Your task to perform on an android device: turn notification dots off Image 0: 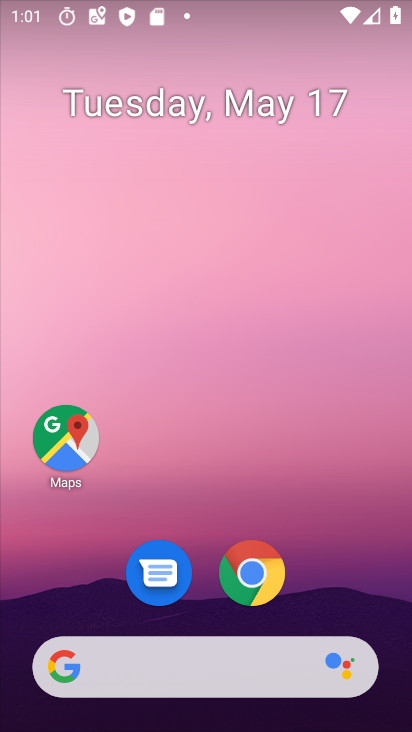
Step 0: drag from (199, 715) to (315, 705)
Your task to perform on an android device: turn notification dots off Image 1: 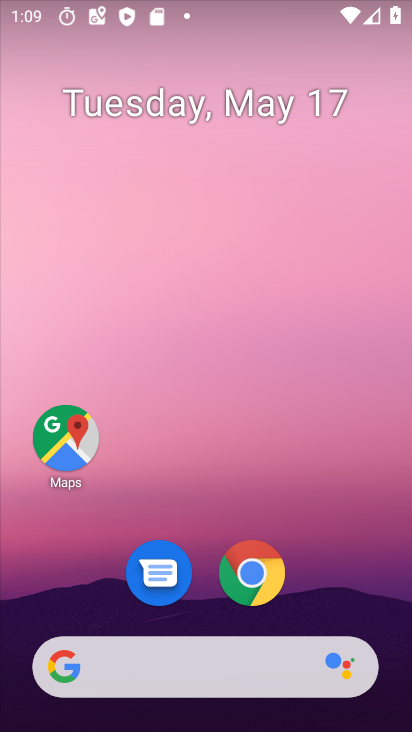
Step 1: drag from (225, 721) to (224, 23)
Your task to perform on an android device: turn notification dots off Image 2: 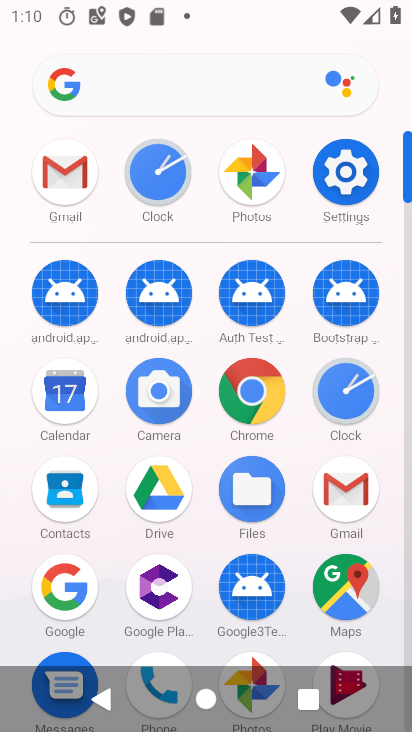
Step 2: click (333, 192)
Your task to perform on an android device: turn notification dots off Image 3: 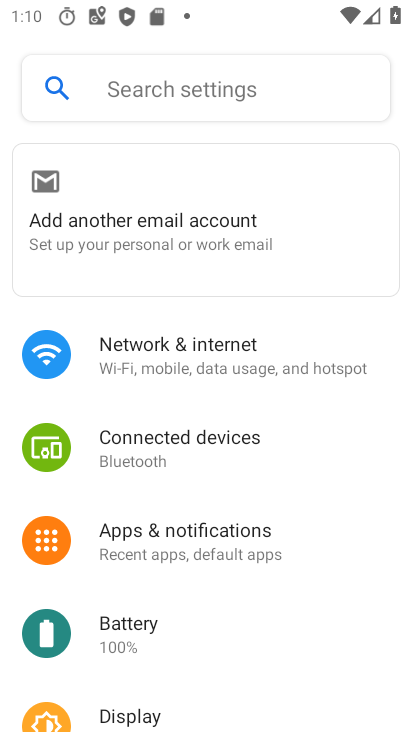
Step 3: click (279, 531)
Your task to perform on an android device: turn notification dots off Image 4: 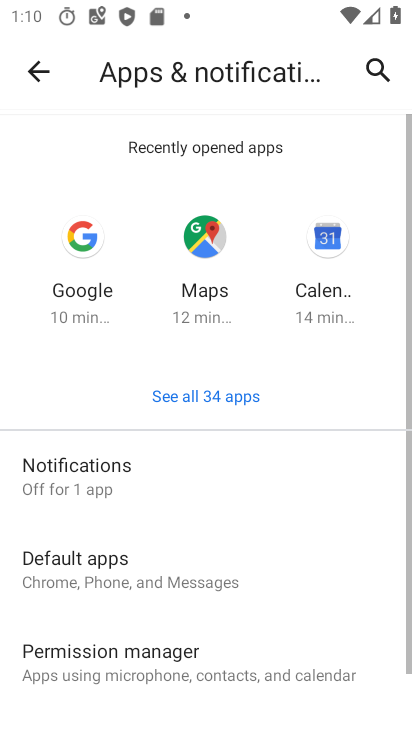
Step 4: click (138, 478)
Your task to perform on an android device: turn notification dots off Image 5: 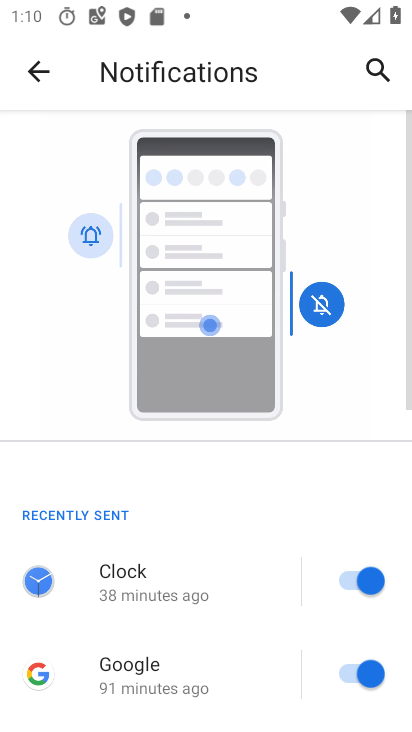
Step 5: drag from (298, 610) to (315, 238)
Your task to perform on an android device: turn notification dots off Image 6: 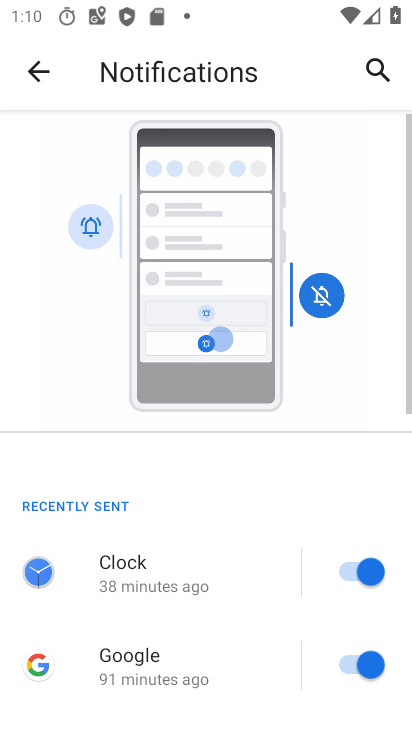
Step 6: drag from (189, 666) to (317, 150)
Your task to perform on an android device: turn notification dots off Image 7: 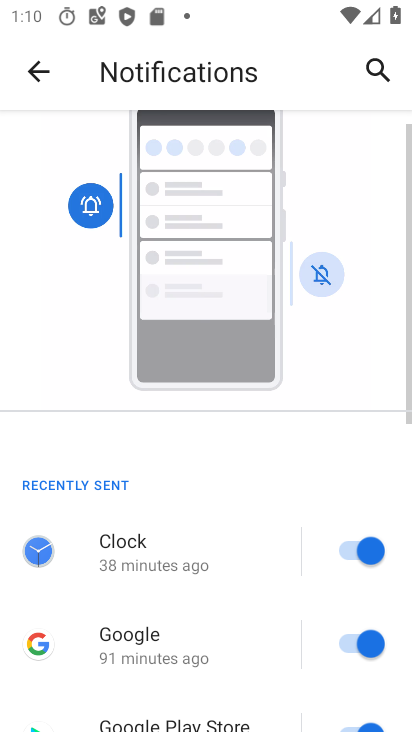
Step 7: drag from (255, 671) to (341, 44)
Your task to perform on an android device: turn notification dots off Image 8: 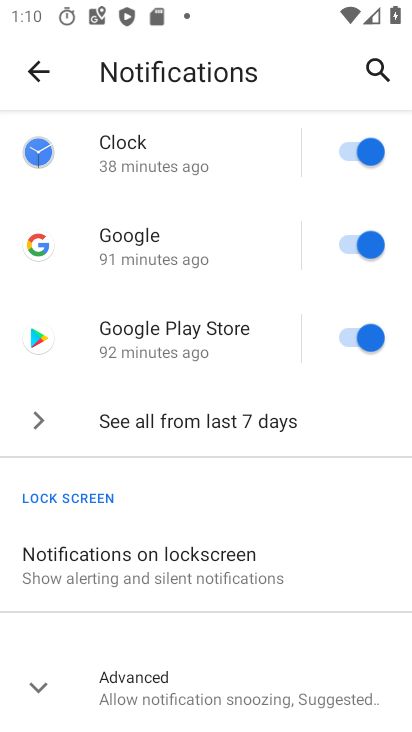
Step 8: click (223, 694)
Your task to perform on an android device: turn notification dots off Image 9: 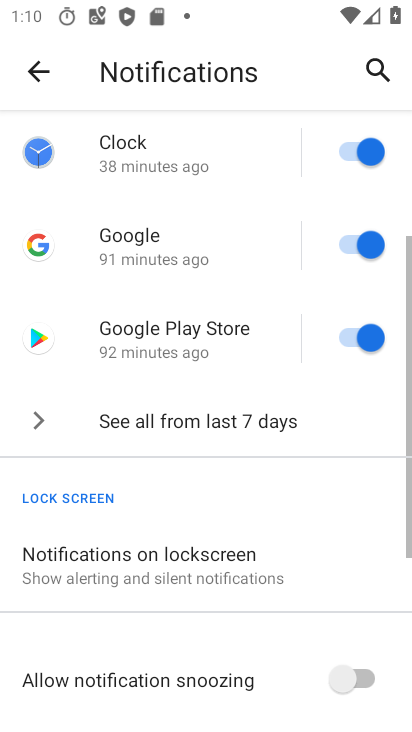
Step 9: drag from (303, 675) to (303, 176)
Your task to perform on an android device: turn notification dots off Image 10: 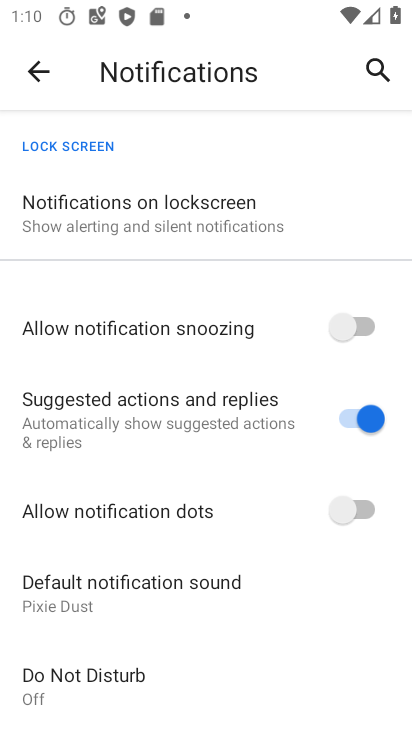
Step 10: click (351, 508)
Your task to perform on an android device: turn notification dots off Image 11: 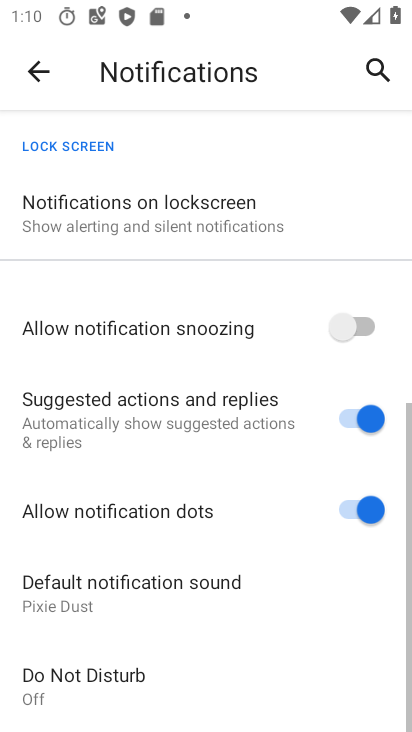
Step 11: task complete